Your task to perform on an android device: find photos in the google photos app Image 0: 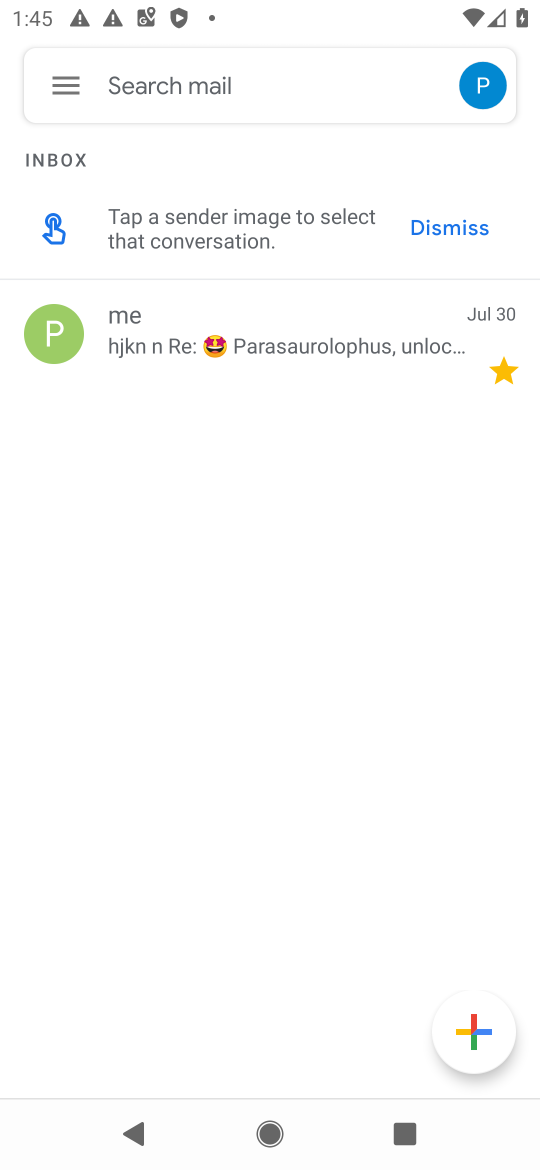
Step 0: press home button
Your task to perform on an android device: find photos in the google photos app Image 1: 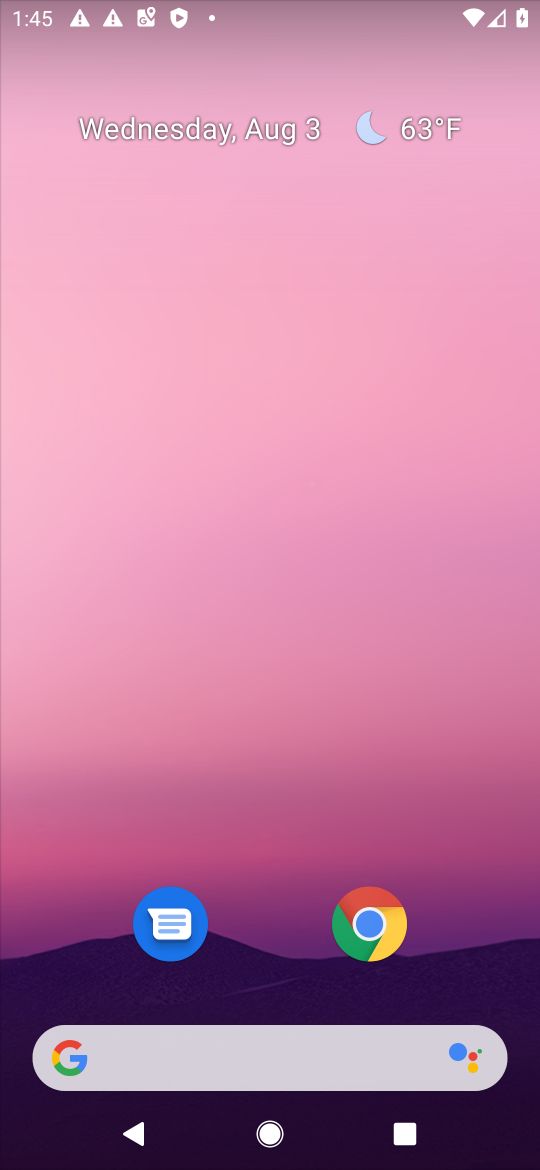
Step 1: drag from (257, 989) to (365, 140)
Your task to perform on an android device: find photos in the google photos app Image 2: 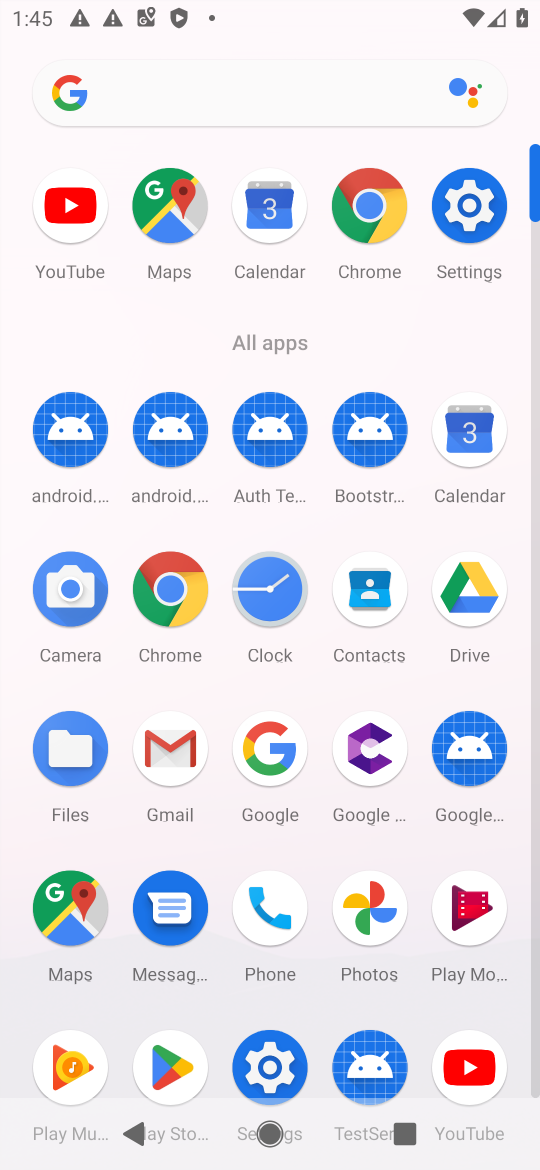
Step 2: click (361, 894)
Your task to perform on an android device: find photos in the google photos app Image 3: 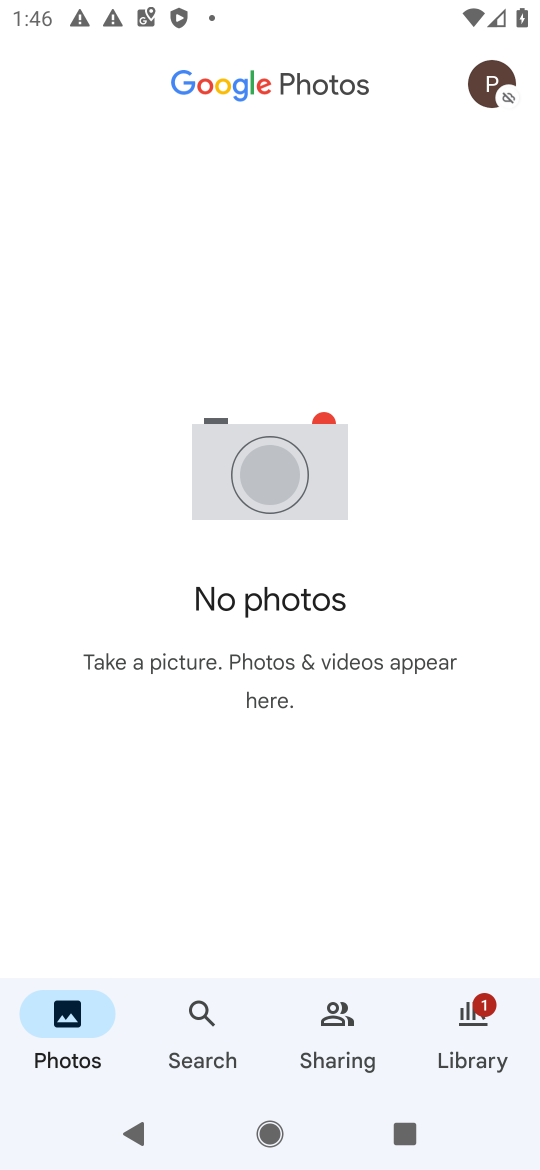
Step 3: task complete